Your task to perform on an android device: Go to Google maps Image 0: 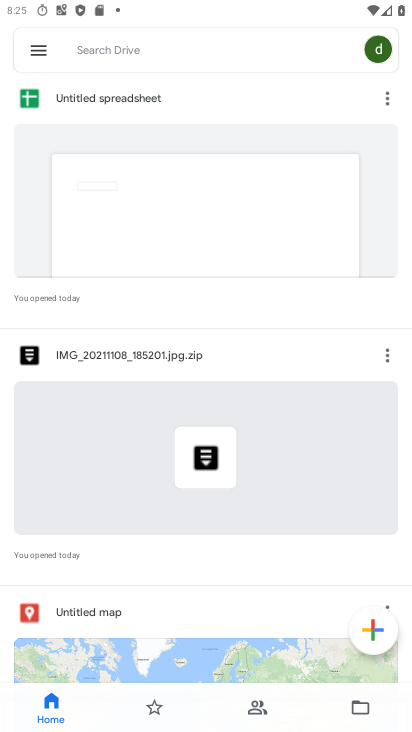
Step 0: drag from (221, 561) to (289, 134)
Your task to perform on an android device: Go to Google maps Image 1: 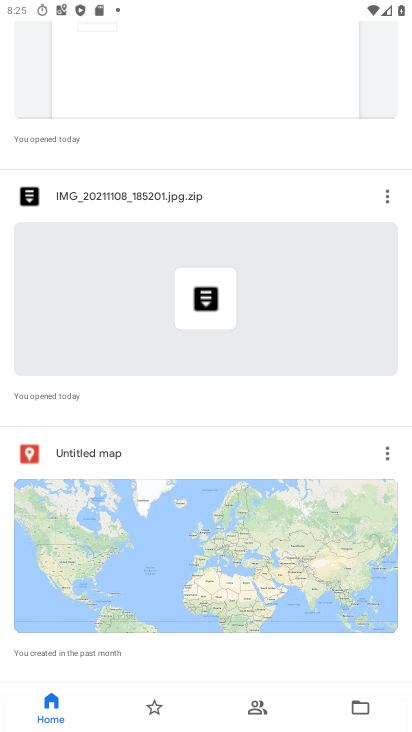
Step 1: drag from (243, 214) to (374, 680)
Your task to perform on an android device: Go to Google maps Image 2: 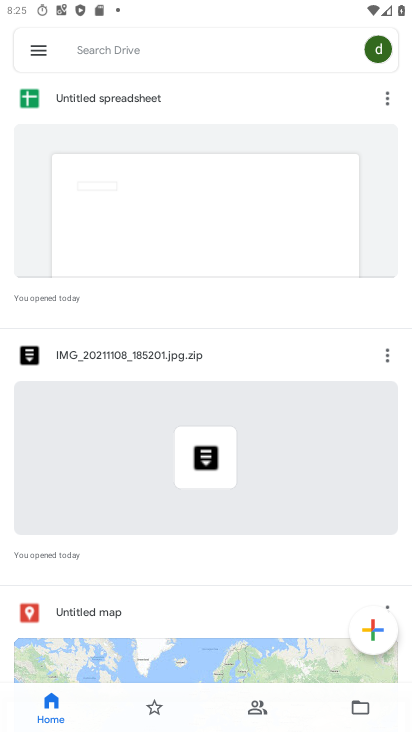
Step 2: press home button
Your task to perform on an android device: Go to Google maps Image 3: 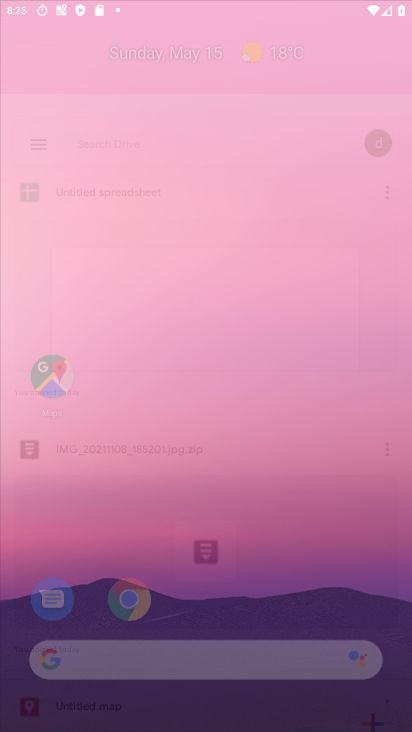
Step 3: drag from (164, 633) to (240, 230)
Your task to perform on an android device: Go to Google maps Image 4: 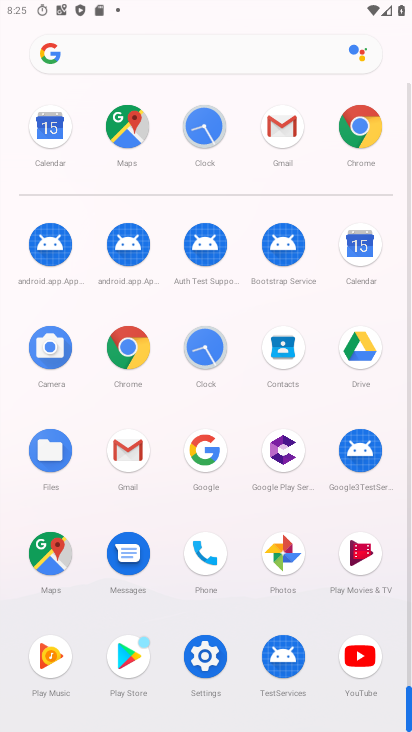
Step 4: click (58, 553)
Your task to perform on an android device: Go to Google maps Image 5: 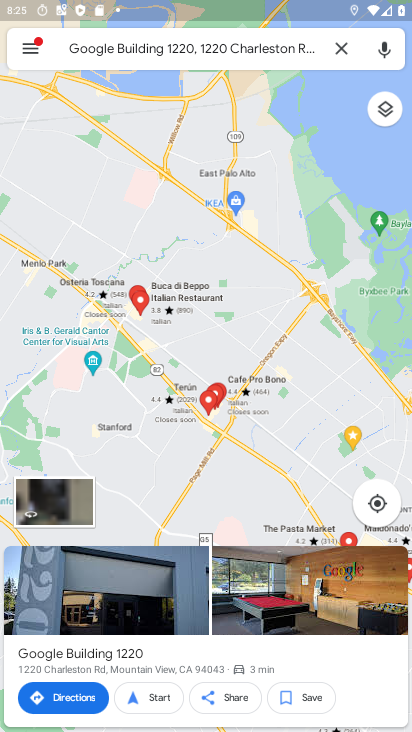
Step 5: task complete